Your task to perform on an android device: all mails in gmail Image 0: 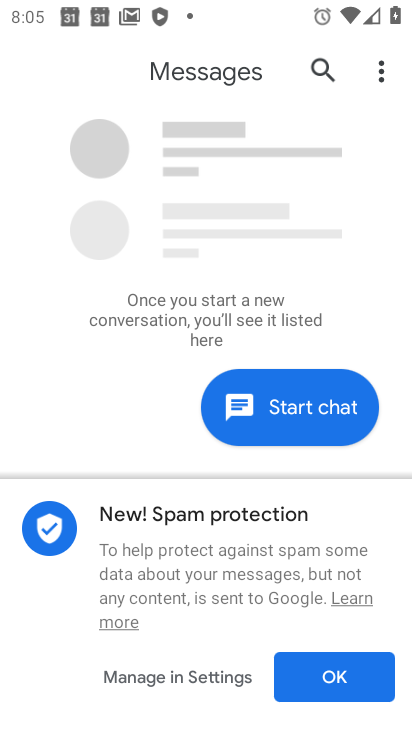
Step 0: press home button
Your task to perform on an android device: all mails in gmail Image 1: 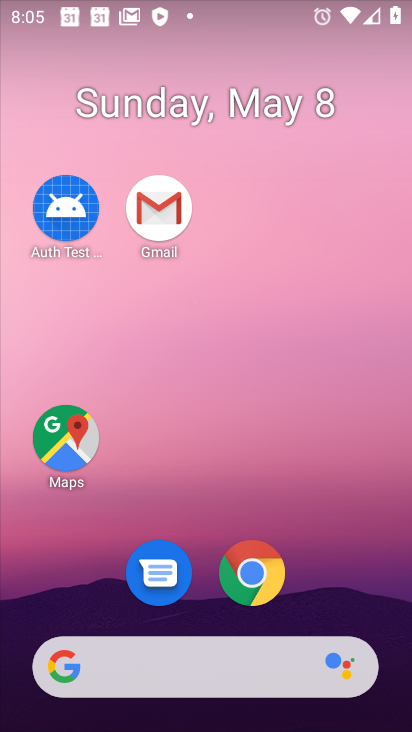
Step 1: drag from (369, 617) to (192, 89)
Your task to perform on an android device: all mails in gmail Image 2: 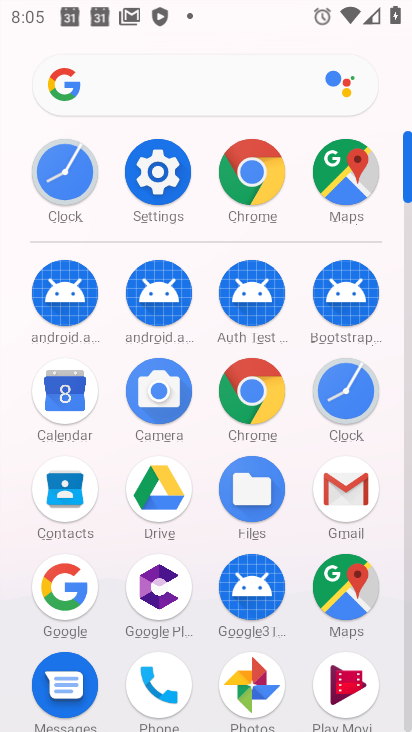
Step 2: click (339, 470)
Your task to perform on an android device: all mails in gmail Image 3: 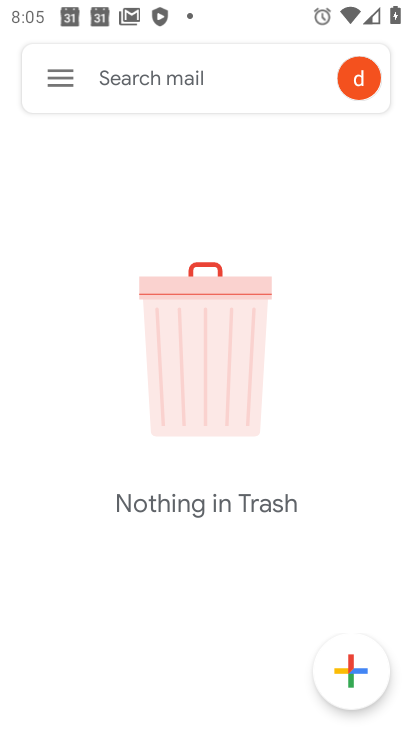
Step 3: press home button
Your task to perform on an android device: all mails in gmail Image 4: 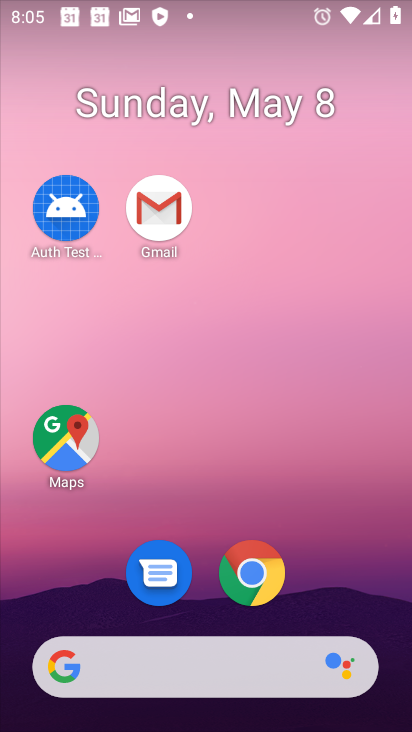
Step 4: drag from (335, 524) to (109, 39)
Your task to perform on an android device: all mails in gmail Image 5: 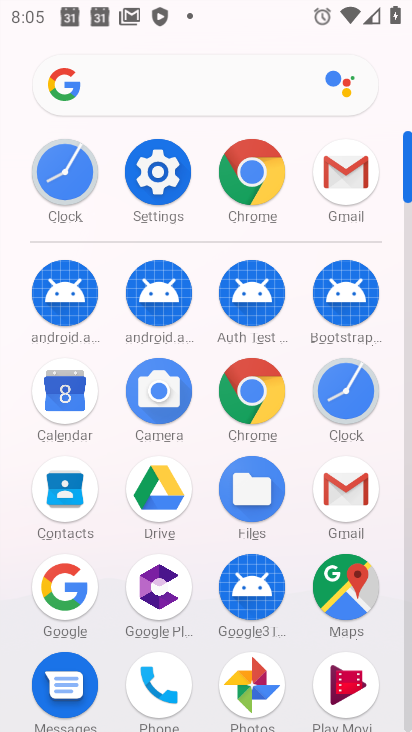
Step 5: click (339, 485)
Your task to perform on an android device: all mails in gmail Image 6: 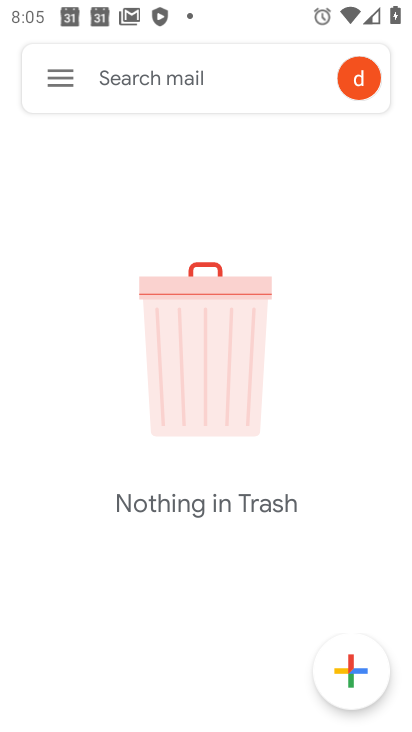
Step 6: click (55, 74)
Your task to perform on an android device: all mails in gmail Image 7: 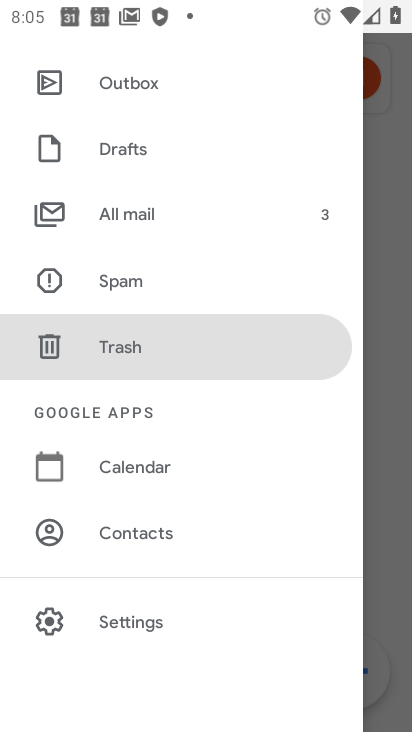
Step 7: click (116, 225)
Your task to perform on an android device: all mails in gmail Image 8: 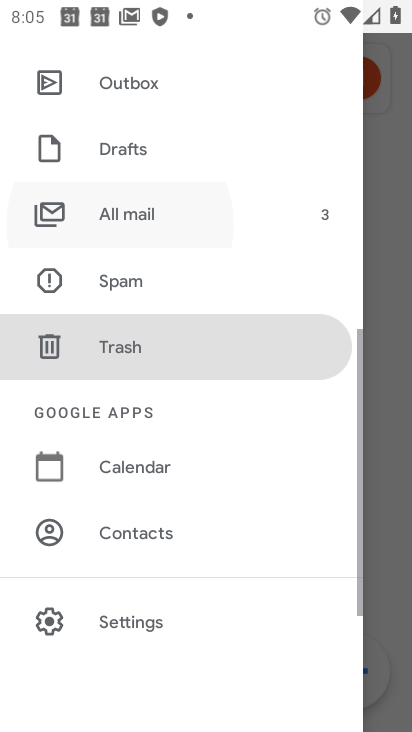
Step 8: click (117, 224)
Your task to perform on an android device: all mails in gmail Image 9: 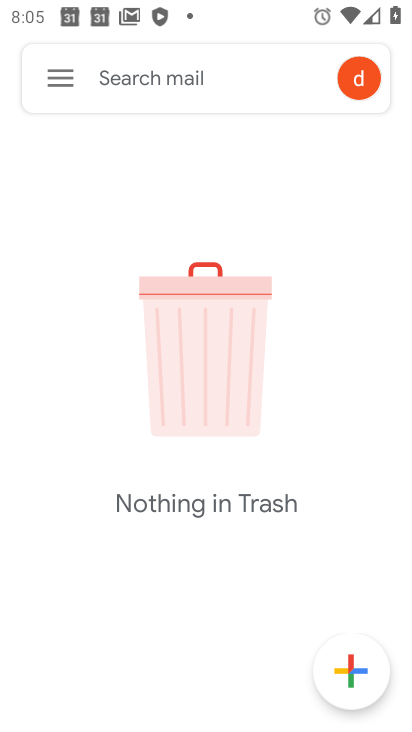
Step 9: click (117, 224)
Your task to perform on an android device: all mails in gmail Image 10: 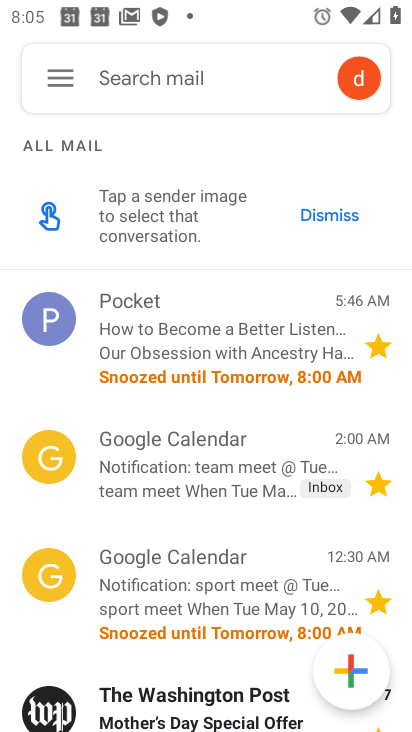
Step 10: task complete